Your task to perform on an android device: Open settings Image 0: 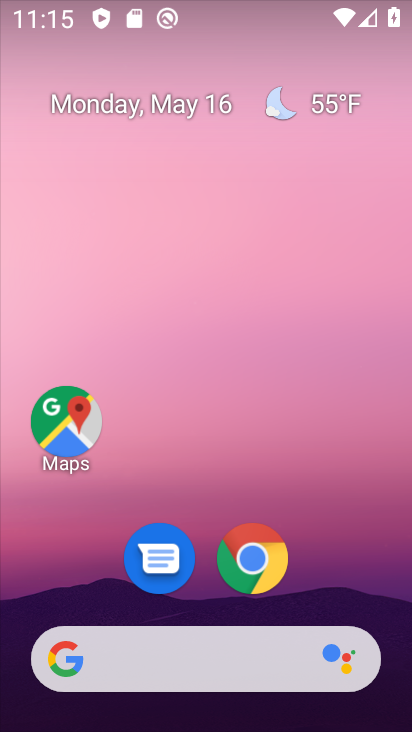
Step 0: drag from (310, 523) to (322, 138)
Your task to perform on an android device: Open settings Image 1: 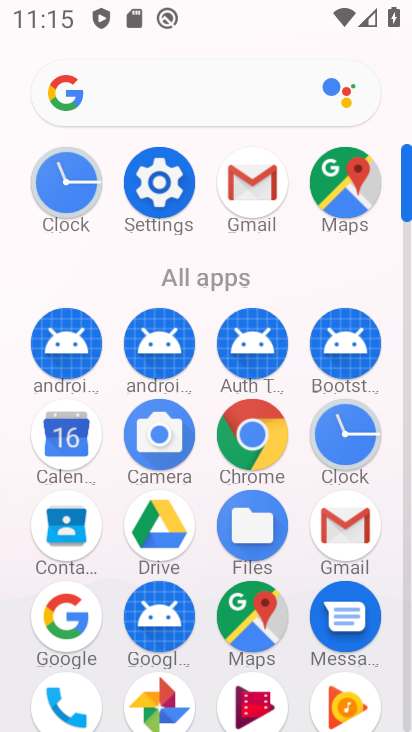
Step 1: click (159, 175)
Your task to perform on an android device: Open settings Image 2: 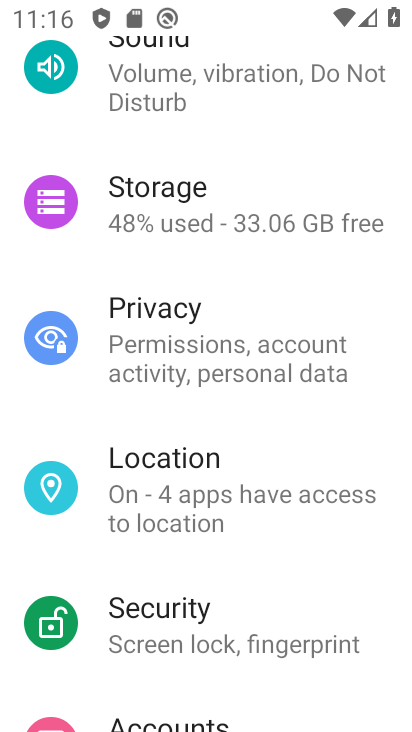
Step 2: task complete